Your task to perform on an android device: check data usage Image 0: 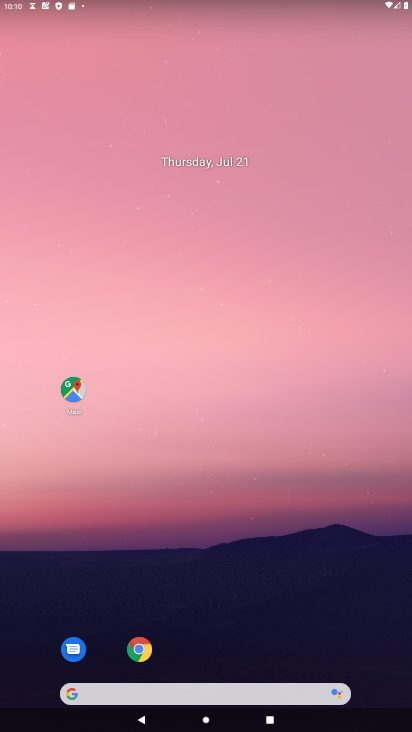
Step 0: drag from (336, 5) to (310, 477)
Your task to perform on an android device: check data usage Image 1: 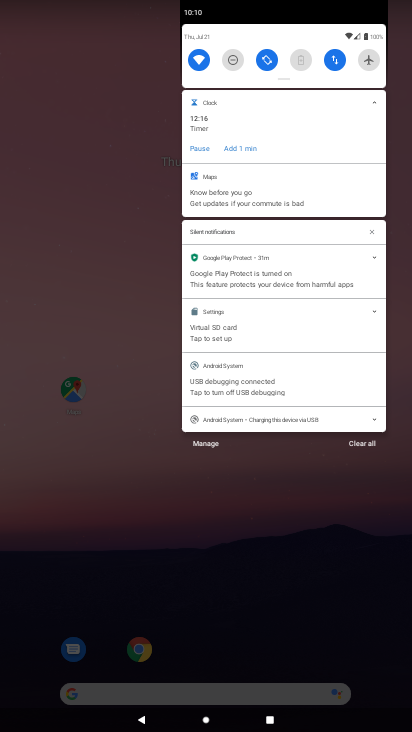
Step 1: click (339, 55)
Your task to perform on an android device: check data usage Image 2: 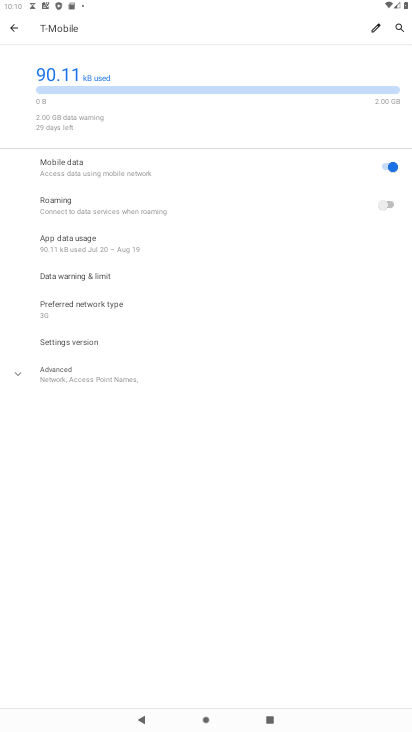
Step 2: task complete